Your task to perform on an android device: Turn off the flashlight Image 0: 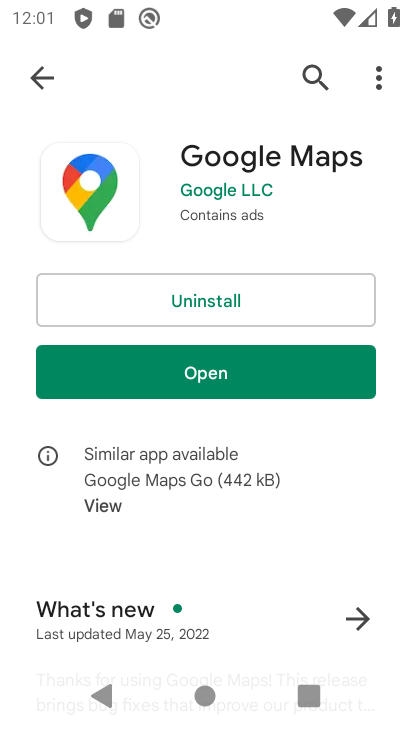
Step 0: drag from (184, 4) to (212, 729)
Your task to perform on an android device: Turn off the flashlight Image 1: 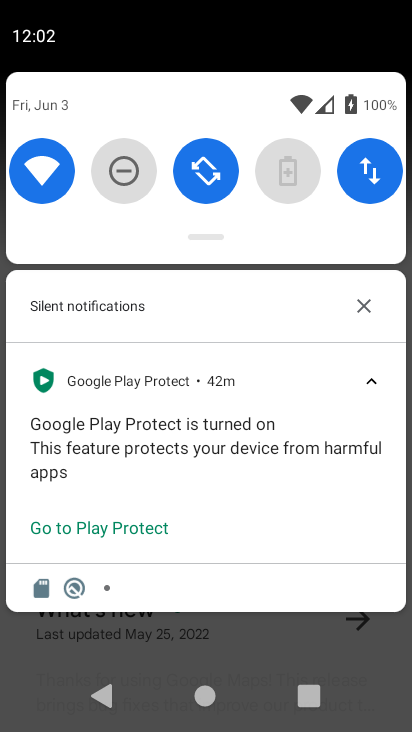
Step 1: task complete